Your task to perform on an android device: install app "VLC for Android" Image 0: 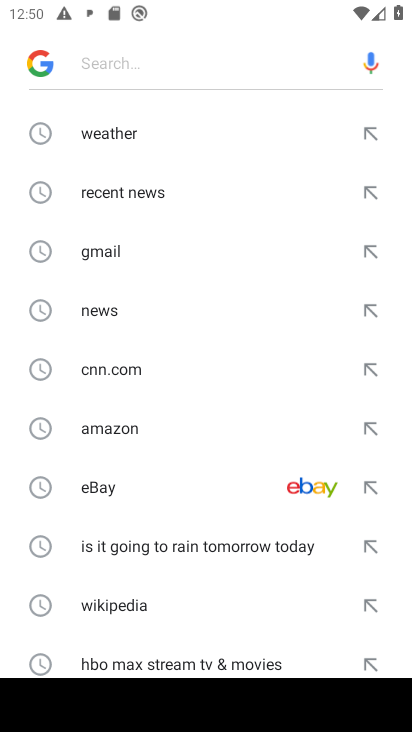
Step 0: press home button
Your task to perform on an android device: install app "VLC for Android" Image 1: 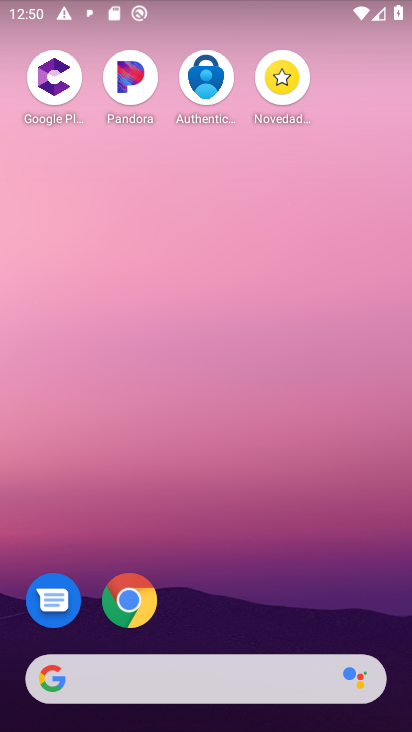
Step 1: drag from (167, 660) to (148, 220)
Your task to perform on an android device: install app "VLC for Android" Image 2: 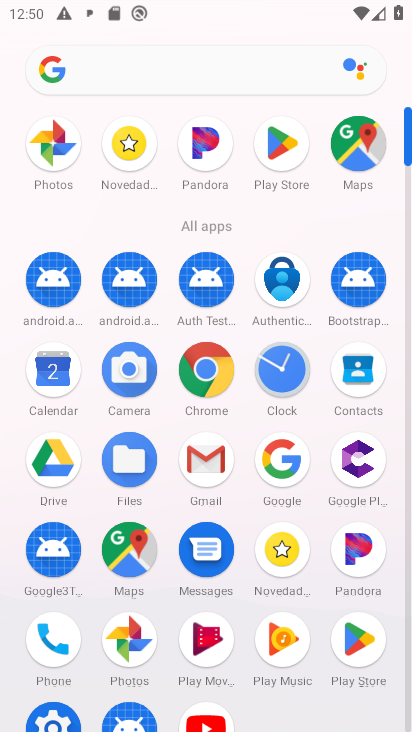
Step 2: click (359, 646)
Your task to perform on an android device: install app "VLC for Android" Image 3: 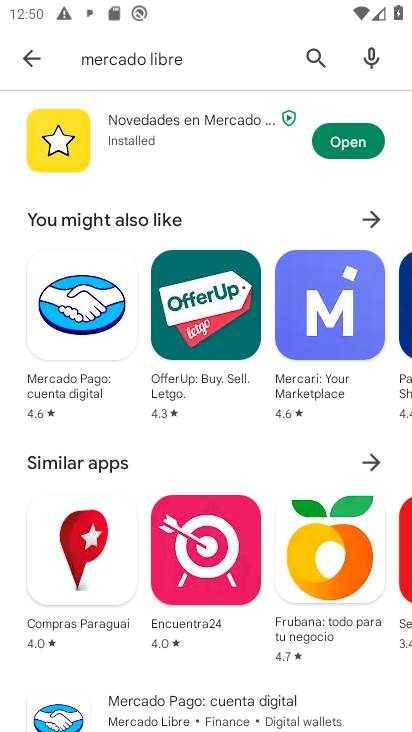
Step 3: click (313, 57)
Your task to perform on an android device: install app "VLC for Android" Image 4: 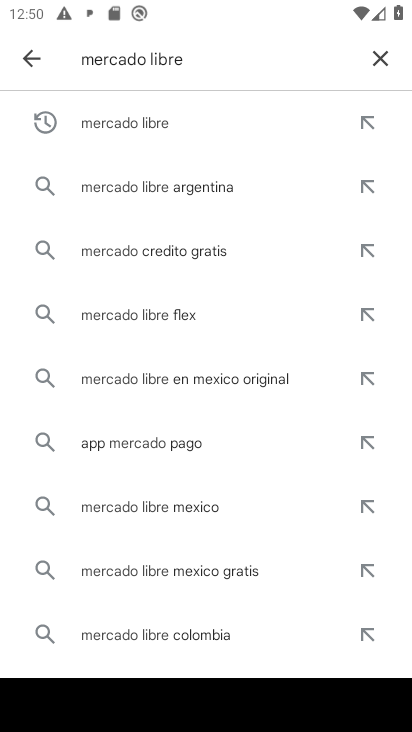
Step 4: click (388, 58)
Your task to perform on an android device: install app "VLC for Android" Image 5: 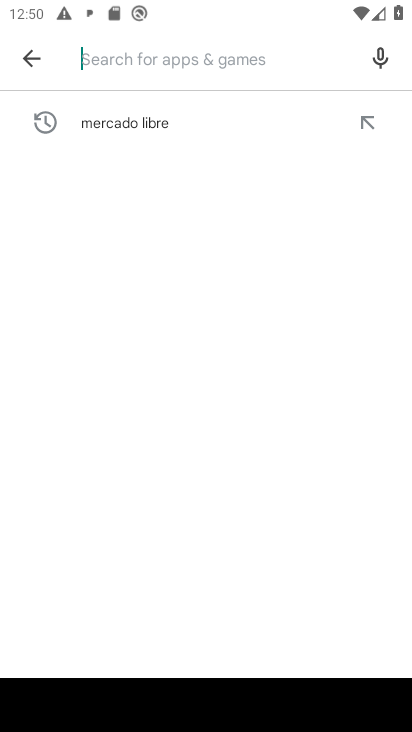
Step 5: type "VLC for Android"
Your task to perform on an android device: install app "VLC for Android" Image 6: 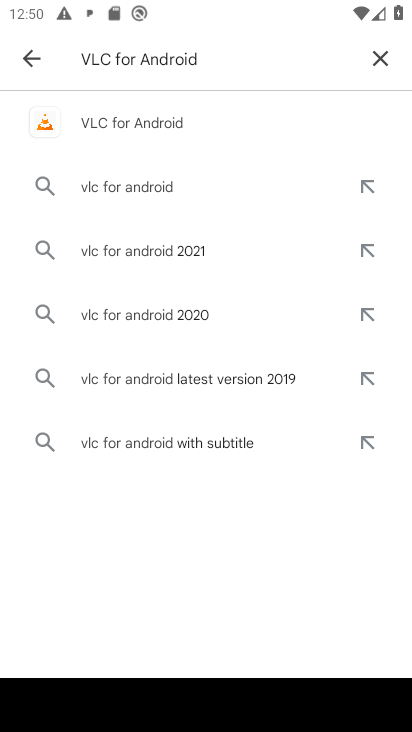
Step 6: click (95, 130)
Your task to perform on an android device: install app "VLC for Android" Image 7: 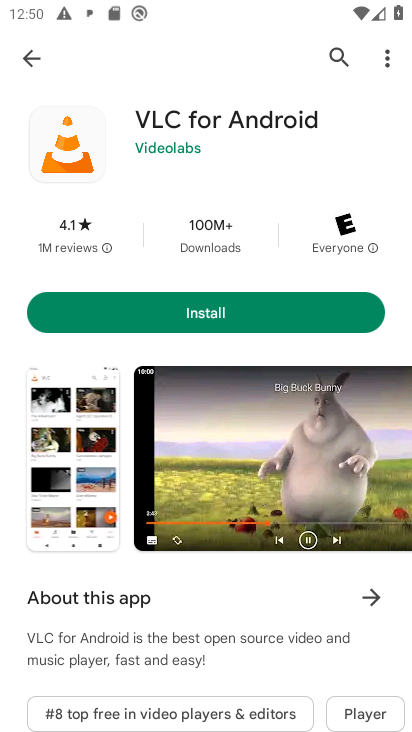
Step 7: click (222, 314)
Your task to perform on an android device: install app "VLC for Android" Image 8: 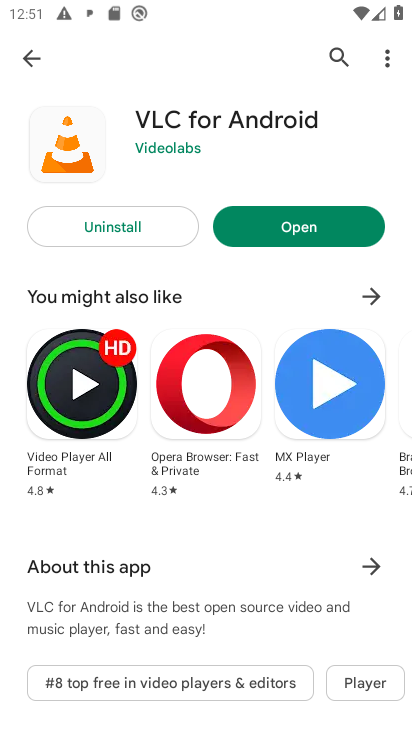
Step 8: click (293, 234)
Your task to perform on an android device: install app "VLC for Android" Image 9: 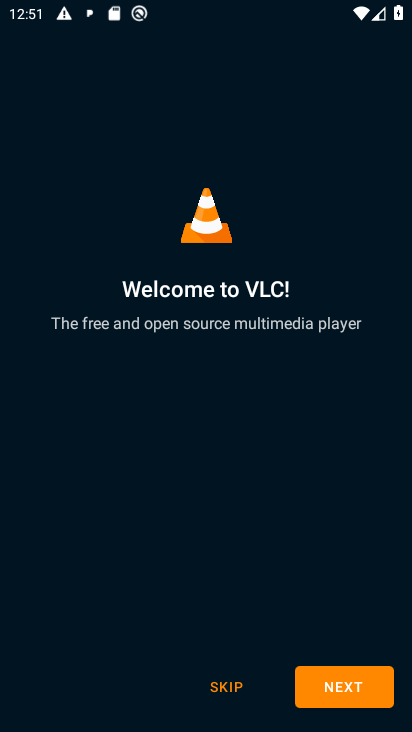
Step 9: task complete